Your task to perform on an android device: find which apps use the phone's location Image 0: 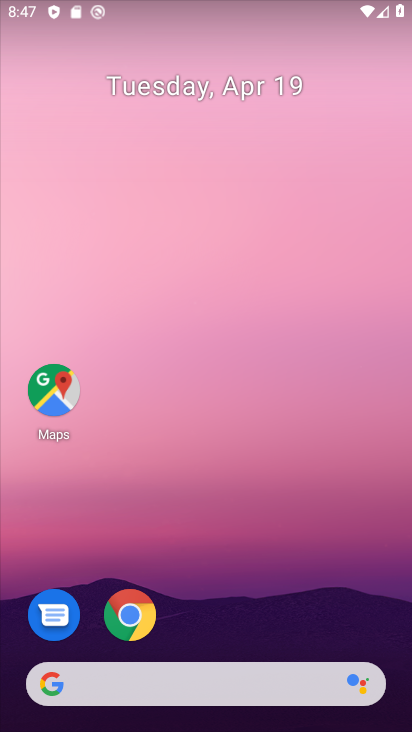
Step 0: drag from (227, 603) to (177, 108)
Your task to perform on an android device: find which apps use the phone's location Image 1: 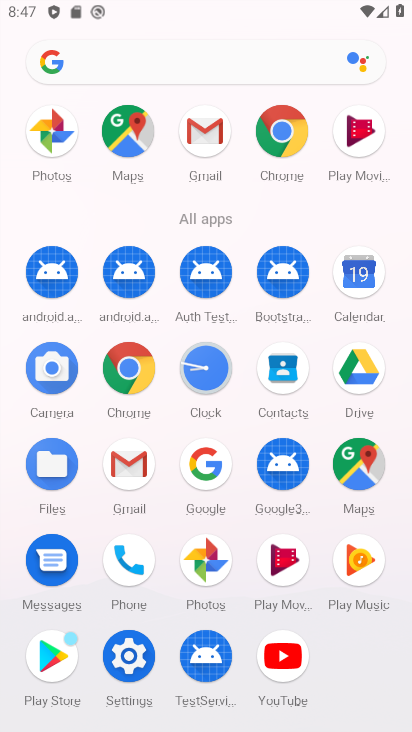
Step 1: click (124, 640)
Your task to perform on an android device: find which apps use the phone's location Image 2: 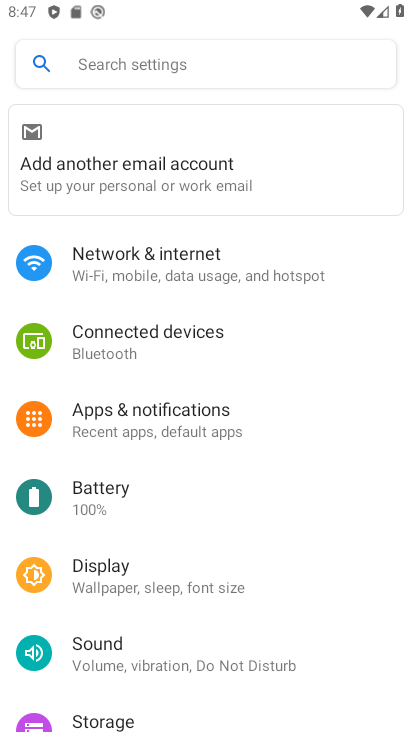
Step 2: drag from (124, 640) to (146, 55)
Your task to perform on an android device: find which apps use the phone's location Image 3: 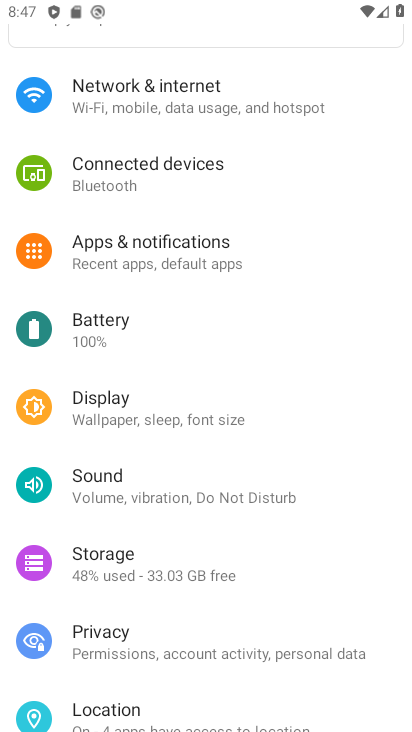
Step 3: click (93, 715)
Your task to perform on an android device: find which apps use the phone's location Image 4: 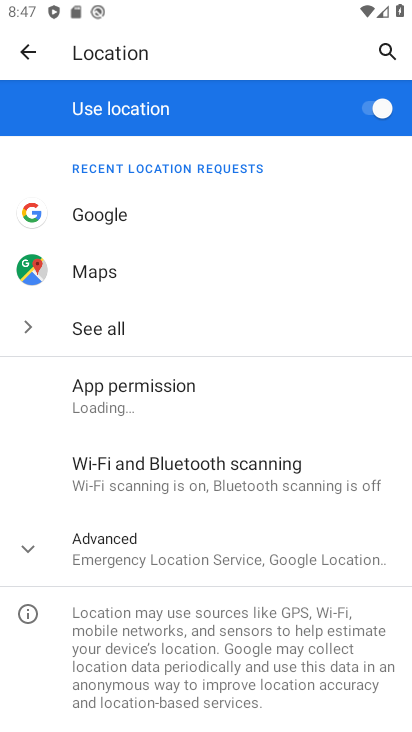
Step 4: click (122, 320)
Your task to perform on an android device: find which apps use the phone's location Image 5: 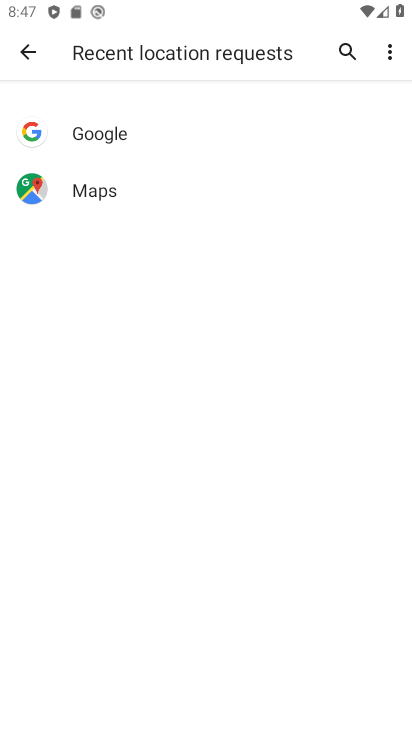
Step 5: task complete